Your task to perform on an android device: uninstall "Skype" Image 0: 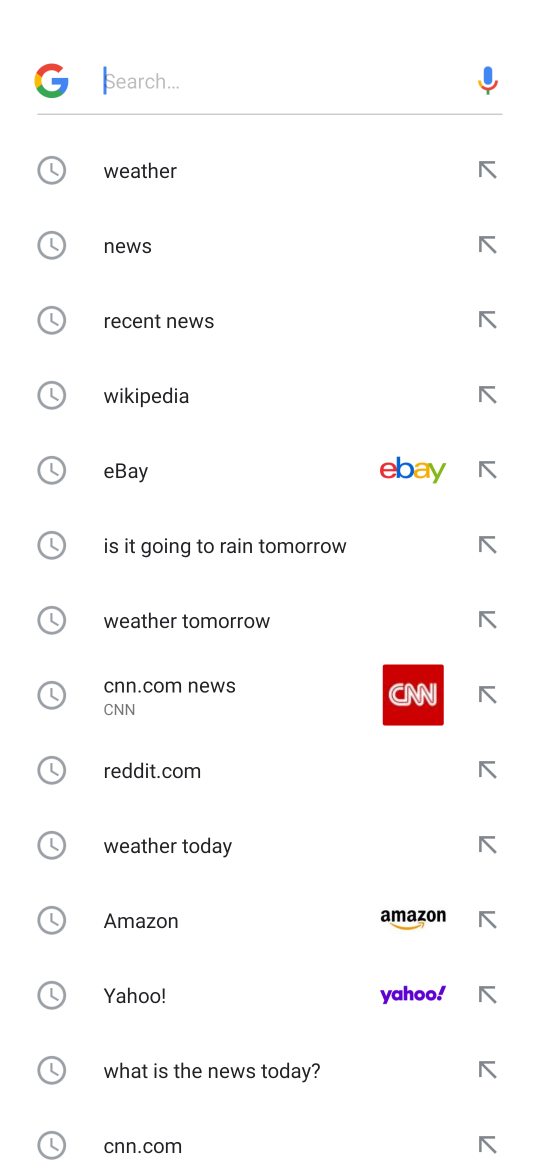
Step 0: press home button
Your task to perform on an android device: uninstall "Skype" Image 1: 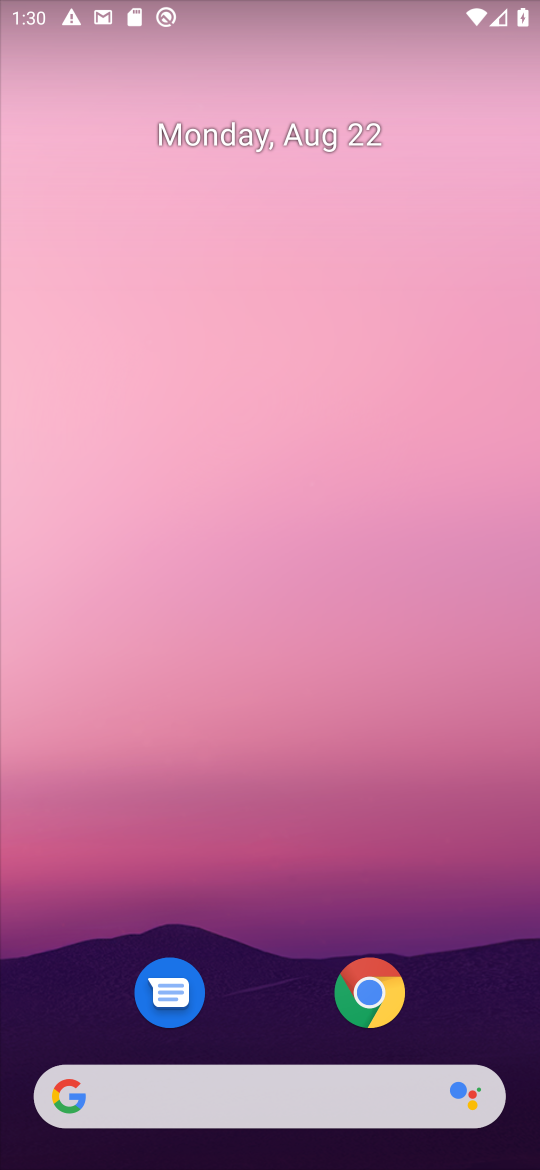
Step 1: drag from (237, 1035) to (347, 39)
Your task to perform on an android device: uninstall "Skype" Image 2: 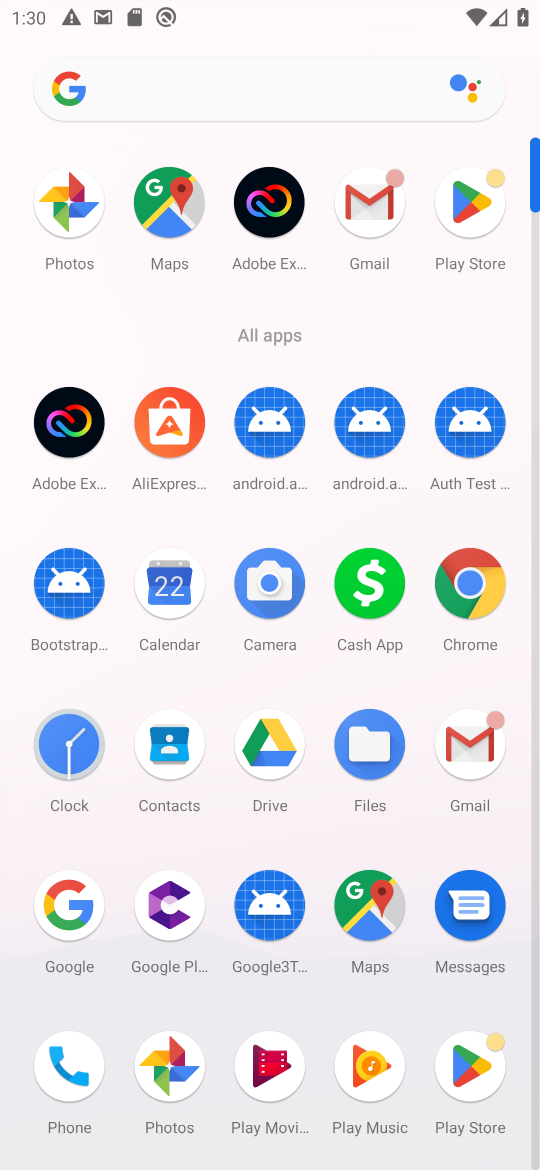
Step 2: click (462, 212)
Your task to perform on an android device: uninstall "Skype" Image 3: 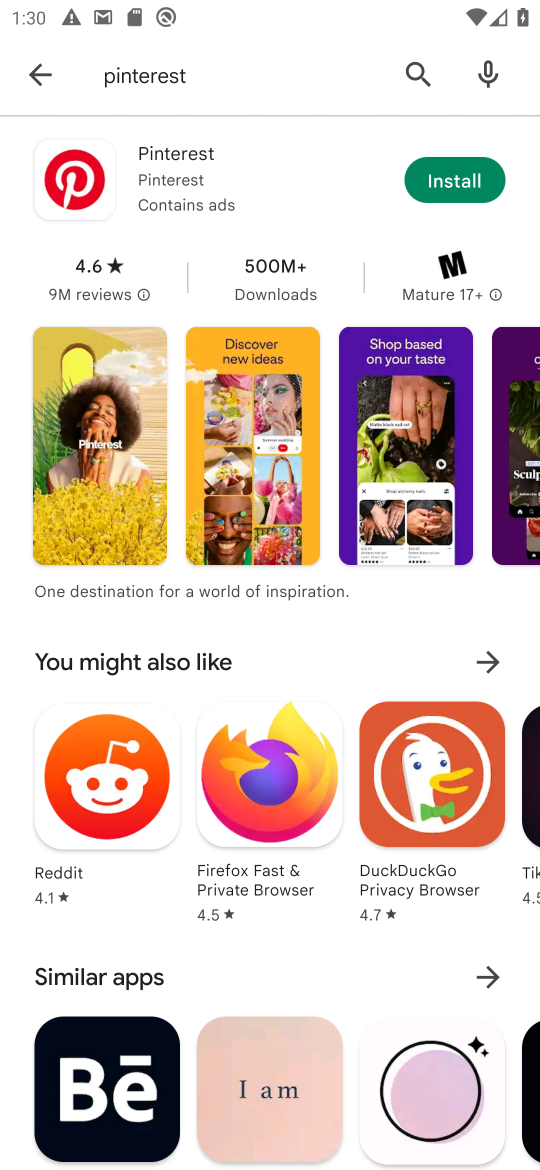
Step 3: click (411, 69)
Your task to perform on an android device: uninstall "Skype" Image 4: 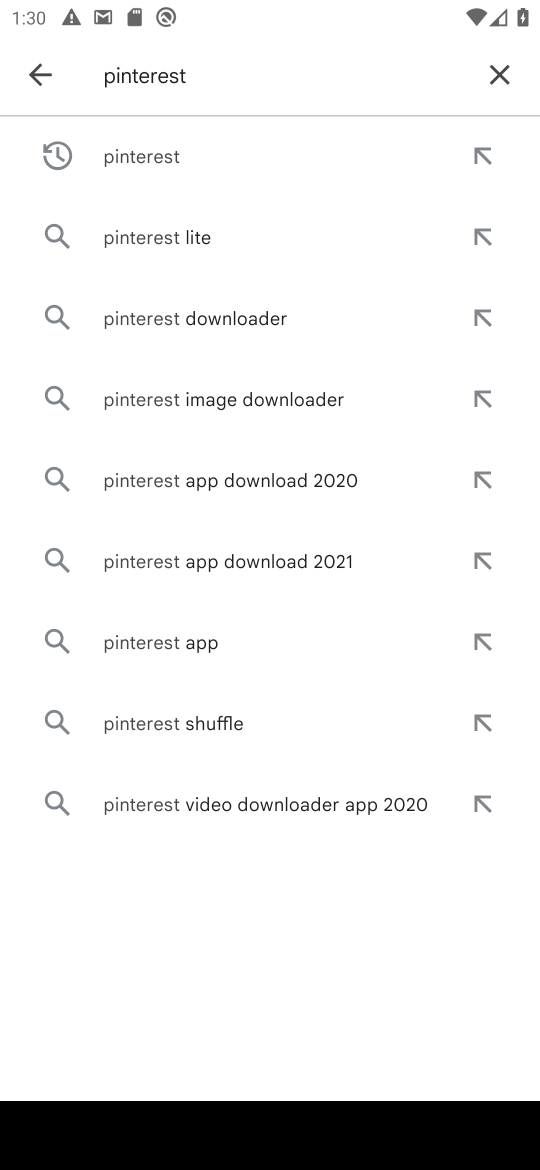
Step 4: click (496, 78)
Your task to perform on an android device: uninstall "Skype" Image 5: 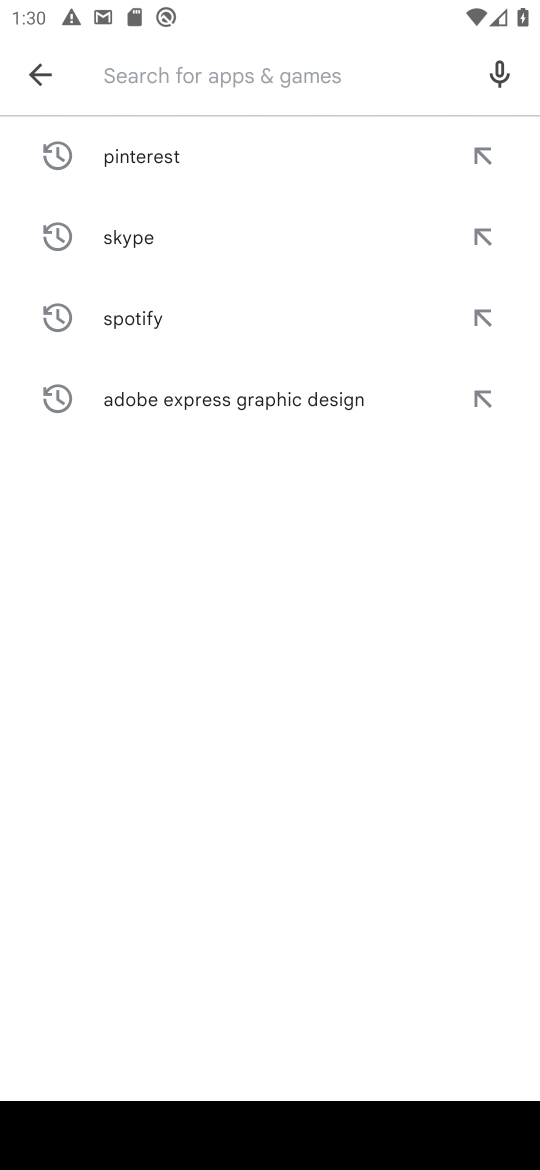
Step 5: type "Skype"
Your task to perform on an android device: uninstall "Skype" Image 6: 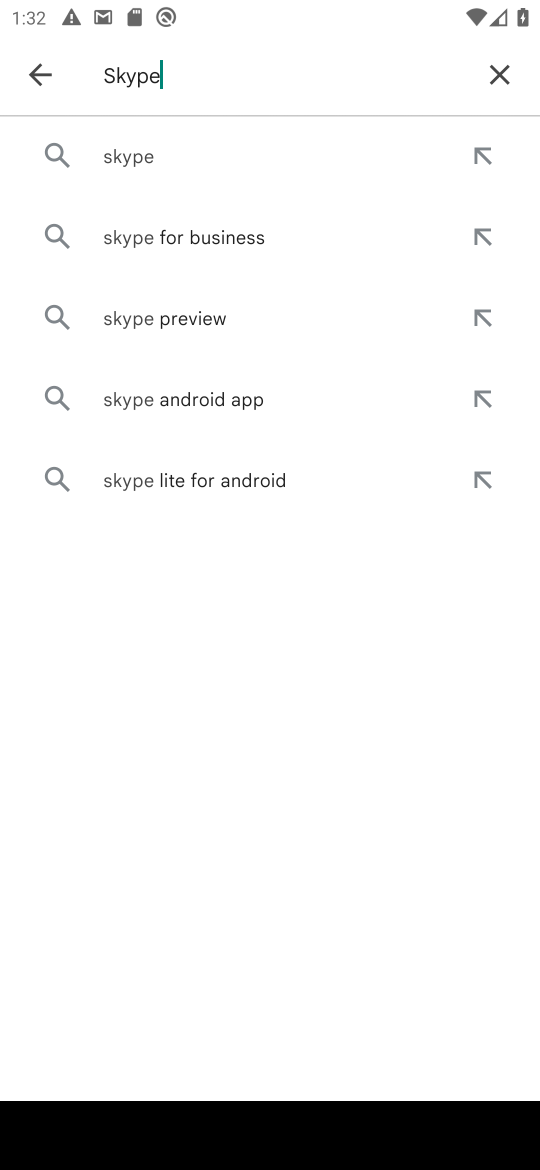
Step 6: click (110, 145)
Your task to perform on an android device: uninstall "Skype" Image 7: 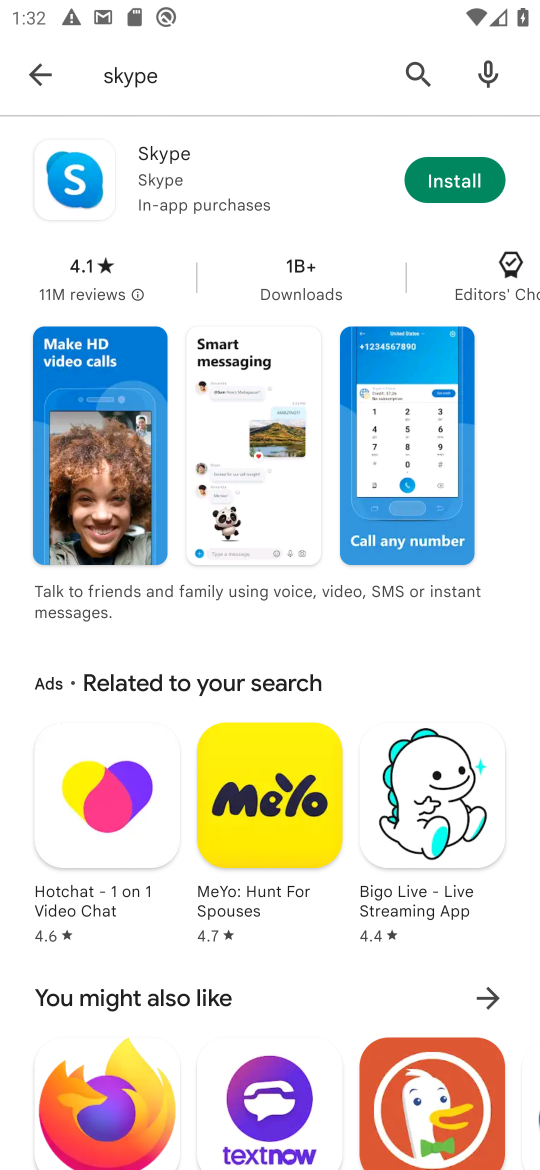
Step 7: task complete